Your task to perform on an android device: check out phone information Image 0: 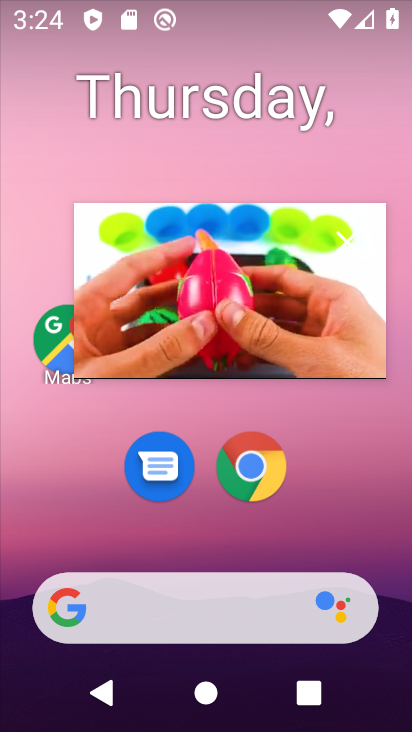
Step 0: click (369, 214)
Your task to perform on an android device: check out phone information Image 1: 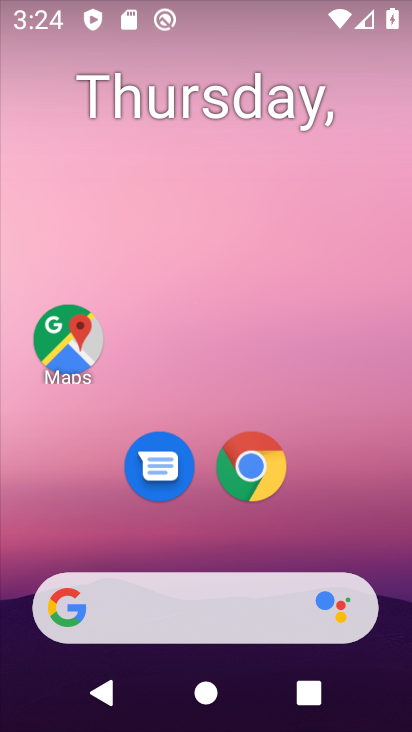
Step 1: drag from (285, 635) to (359, 658)
Your task to perform on an android device: check out phone information Image 2: 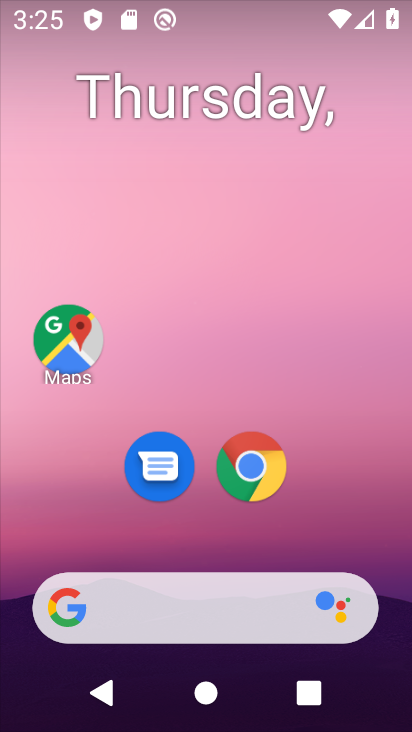
Step 2: drag from (290, 584) to (271, 11)
Your task to perform on an android device: check out phone information Image 3: 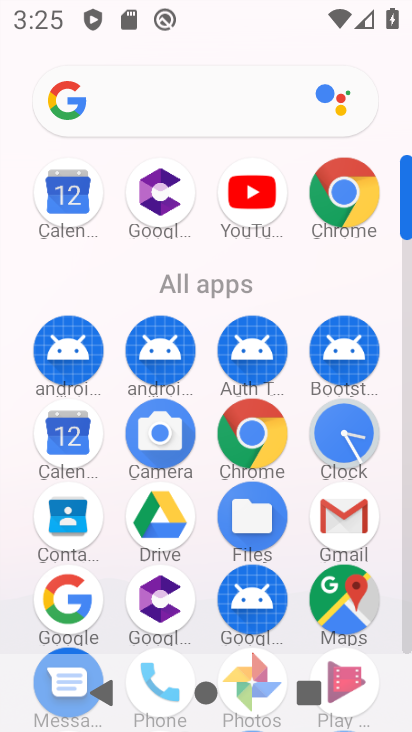
Step 3: drag from (287, 622) to (316, 177)
Your task to perform on an android device: check out phone information Image 4: 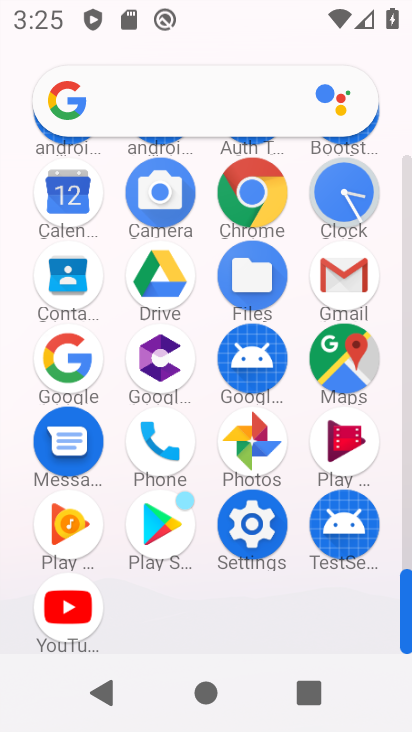
Step 4: click (267, 519)
Your task to perform on an android device: check out phone information Image 5: 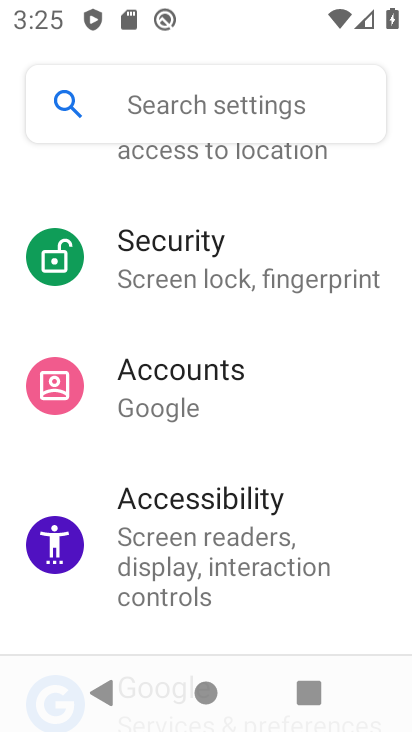
Step 5: drag from (315, 648) to (329, 96)
Your task to perform on an android device: check out phone information Image 6: 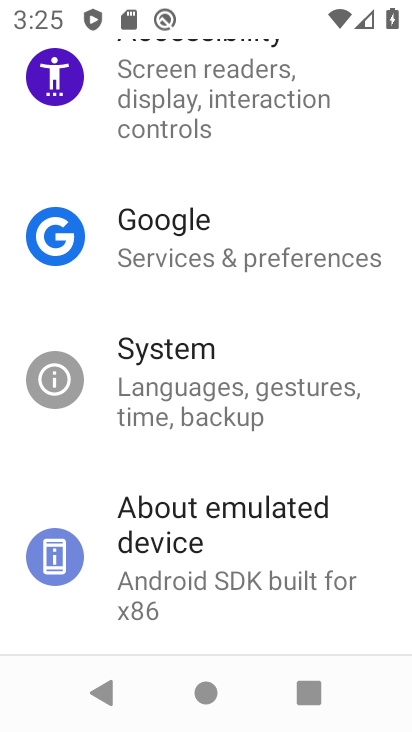
Step 6: drag from (252, 607) to (290, 208)
Your task to perform on an android device: check out phone information Image 7: 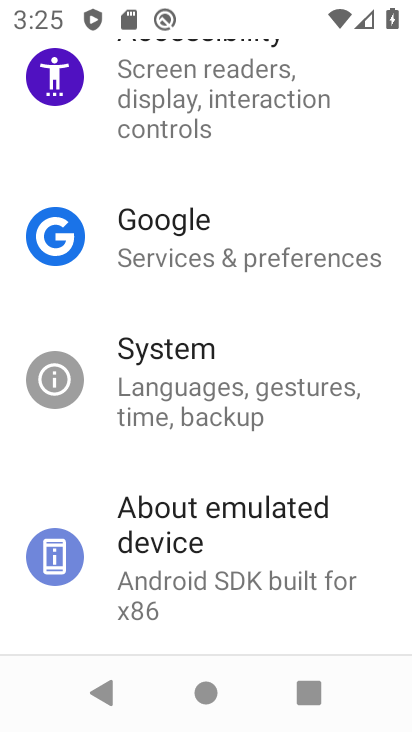
Step 7: drag from (306, 599) to (289, 49)
Your task to perform on an android device: check out phone information Image 8: 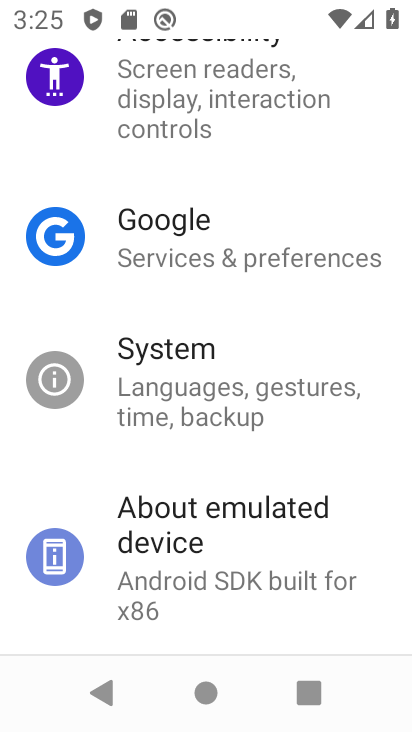
Step 8: click (267, 538)
Your task to perform on an android device: check out phone information Image 9: 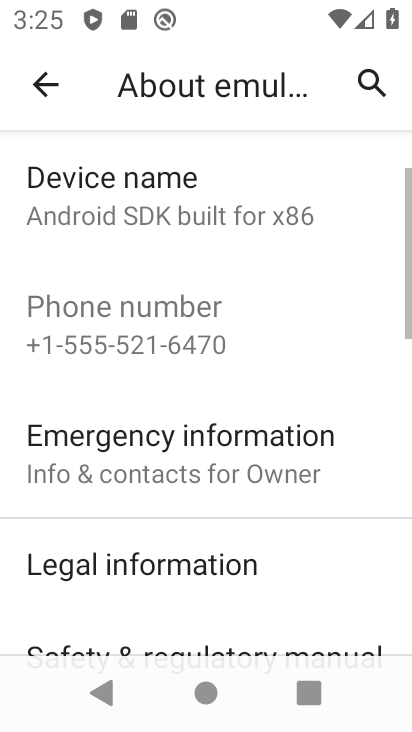
Step 9: task complete